Your task to perform on an android device: open a bookmark in the chrome app Image 0: 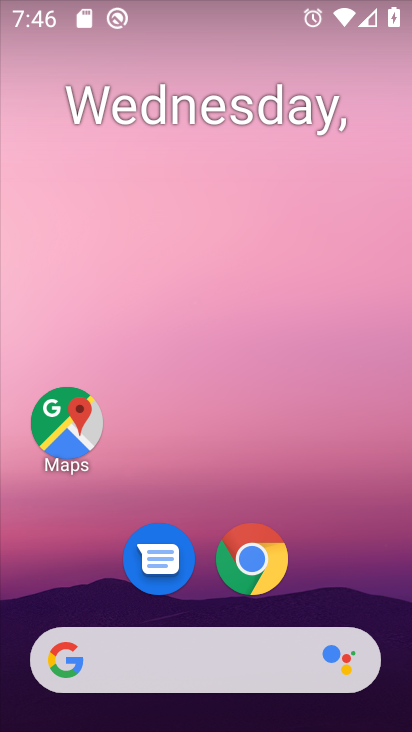
Step 0: drag from (373, 590) to (342, 117)
Your task to perform on an android device: open a bookmark in the chrome app Image 1: 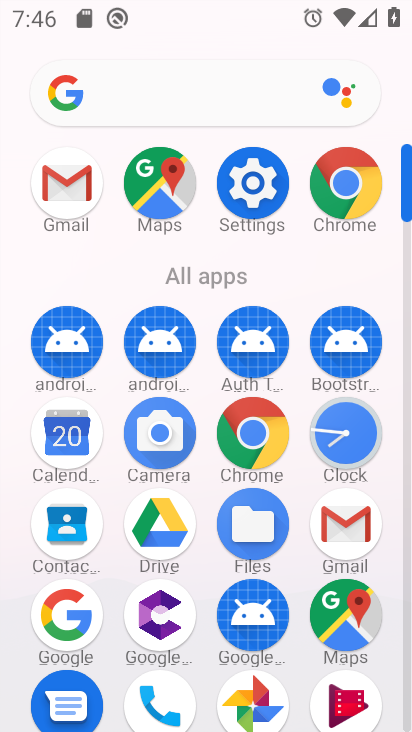
Step 1: click (275, 445)
Your task to perform on an android device: open a bookmark in the chrome app Image 2: 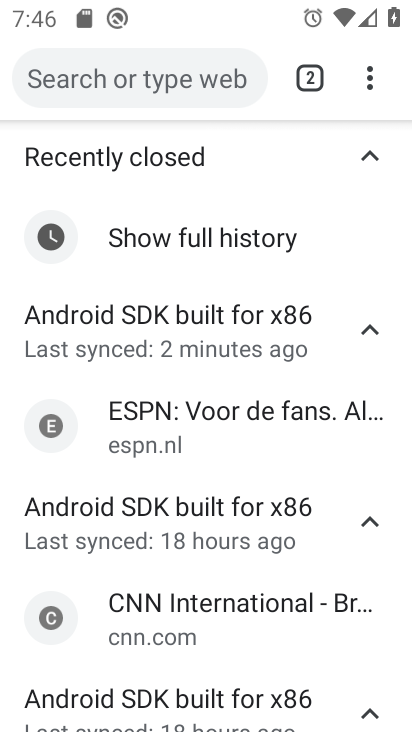
Step 2: task complete